Your task to perform on an android device: Open ESPN.com Image 0: 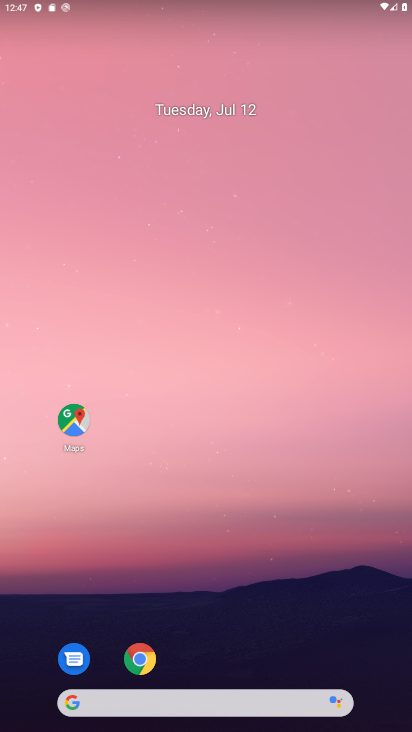
Step 0: click (136, 667)
Your task to perform on an android device: Open ESPN.com Image 1: 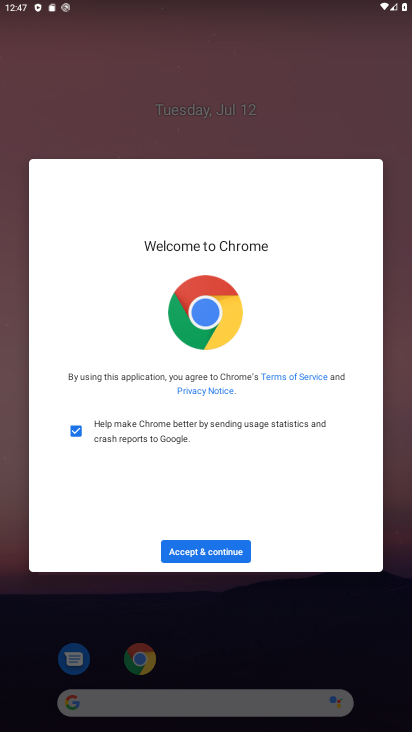
Step 1: click (205, 541)
Your task to perform on an android device: Open ESPN.com Image 2: 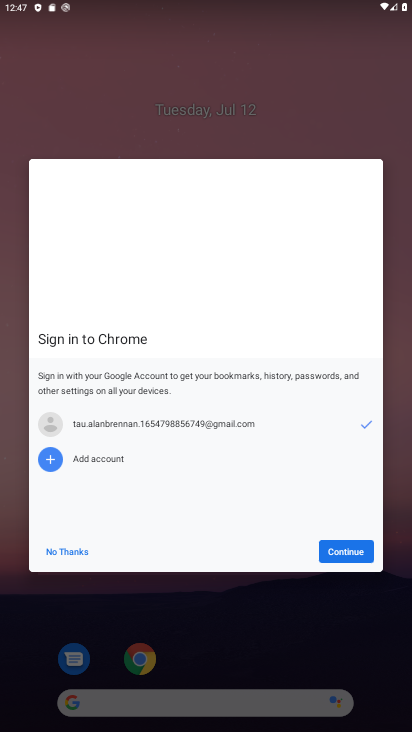
Step 2: click (314, 552)
Your task to perform on an android device: Open ESPN.com Image 3: 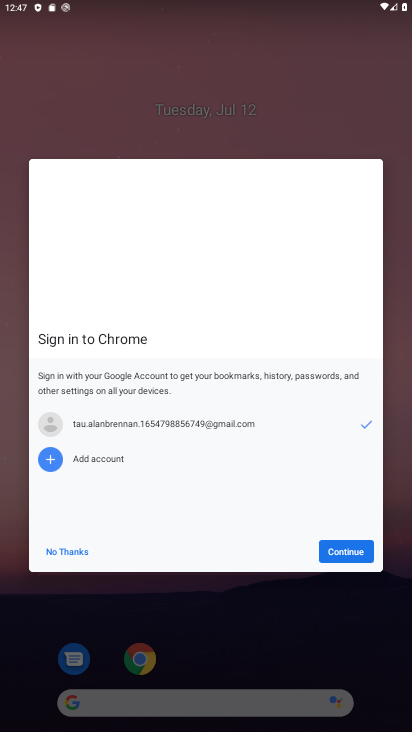
Step 3: click (330, 548)
Your task to perform on an android device: Open ESPN.com Image 4: 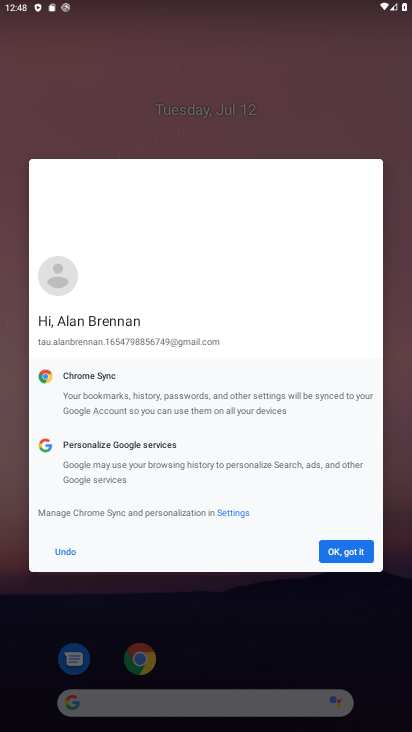
Step 4: click (328, 561)
Your task to perform on an android device: Open ESPN.com Image 5: 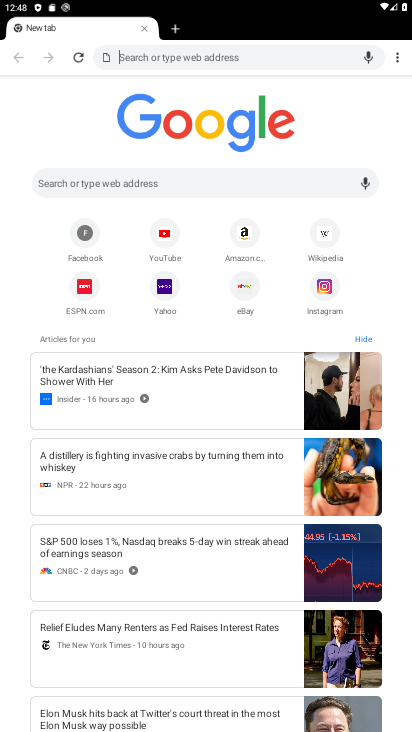
Step 5: click (92, 306)
Your task to perform on an android device: Open ESPN.com Image 6: 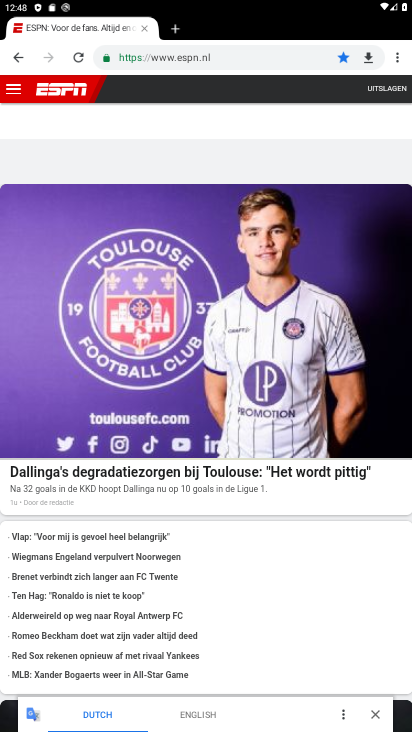
Step 6: task complete